Your task to perform on an android device: Open Google Chrome and open the bookmarks view Image 0: 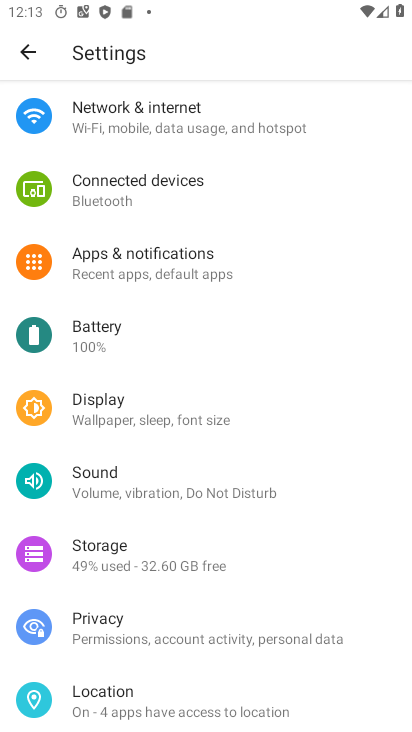
Step 0: press home button
Your task to perform on an android device: Open Google Chrome and open the bookmarks view Image 1: 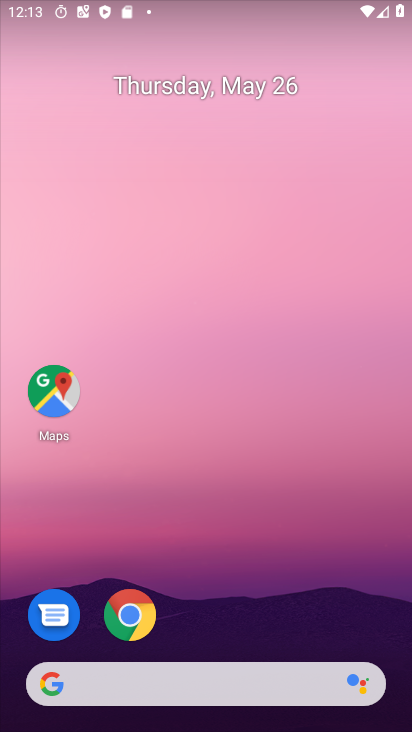
Step 1: drag from (259, 640) to (210, 227)
Your task to perform on an android device: Open Google Chrome and open the bookmarks view Image 2: 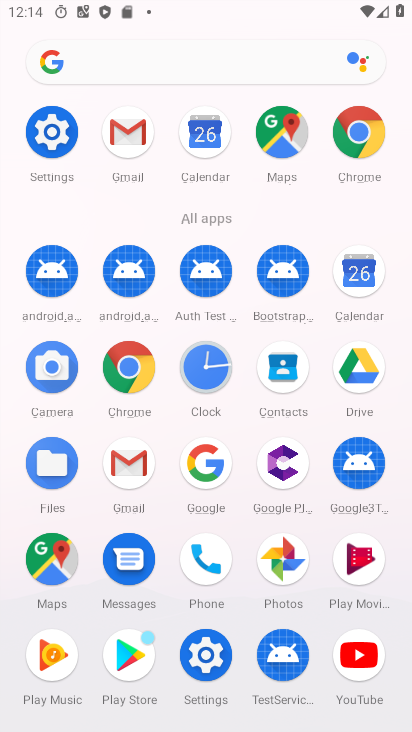
Step 2: click (372, 141)
Your task to perform on an android device: Open Google Chrome and open the bookmarks view Image 3: 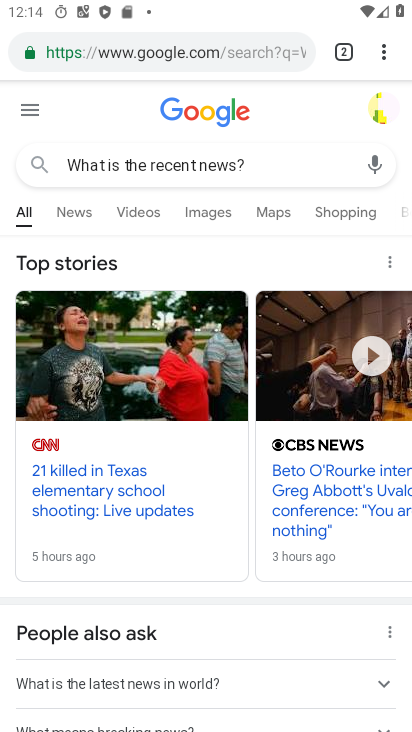
Step 3: click (384, 40)
Your task to perform on an android device: Open Google Chrome and open the bookmarks view Image 4: 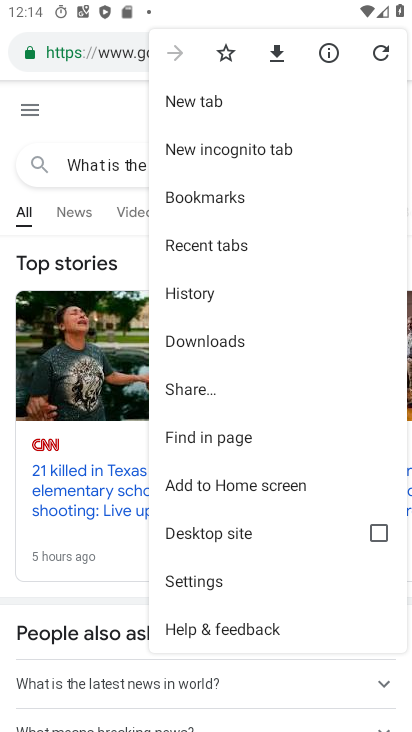
Step 4: click (258, 198)
Your task to perform on an android device: Open Google Chrome and open the bookmarks view Image 5: 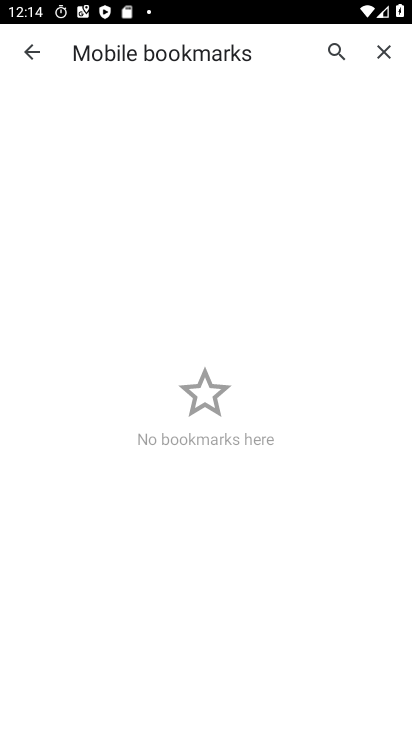
Step 5: task complete